Your task to perform on an android device: Play the last video I watched on Youtube Image 0: 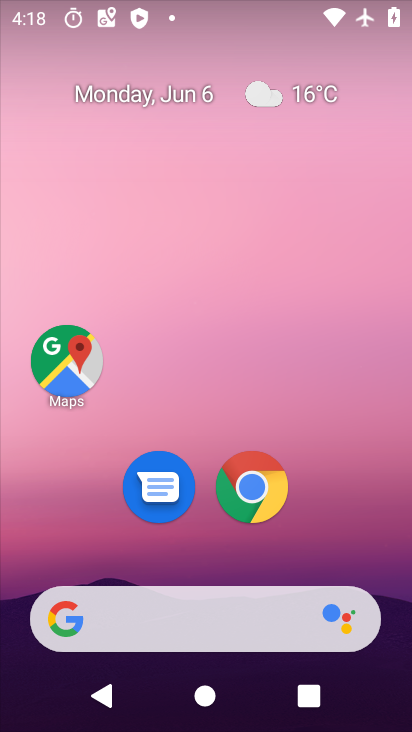
Step 0: drag from (316, 468) to (344, 121)
Your task to perform on an android device: Play the last video I watched on Youtube Image 1: 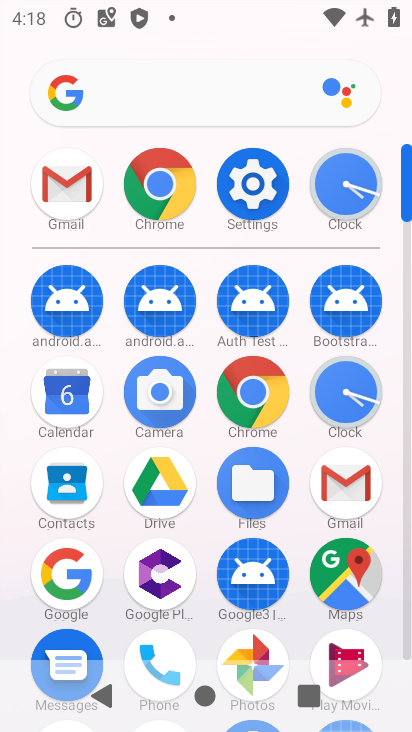
Step 1: drag from (294, 571) to (314, 155)
Your task to perform on an android device: Play the last video I watched on Youtube Image 2: 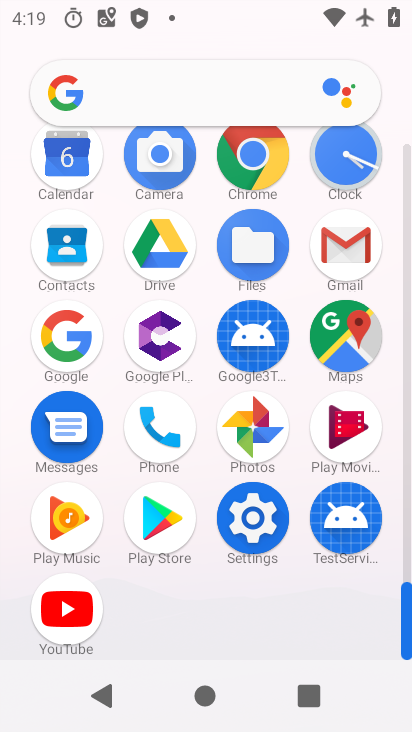
Step 2: click (58, 594)
Your task to perform on an android device: Play the last video I watched on Youtube Image 3: 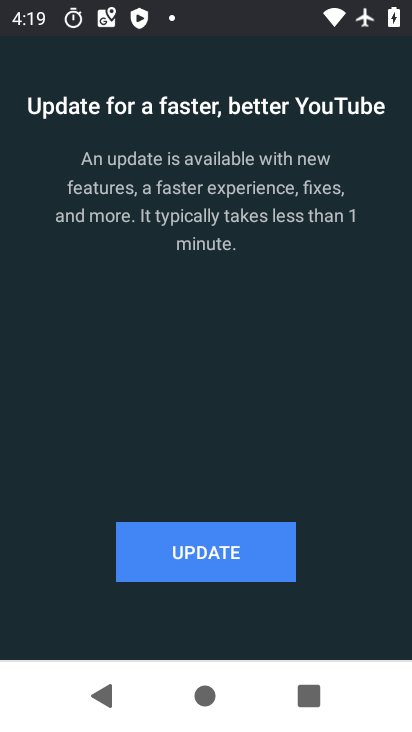
Step 3: click (140, 572)
Your task to perform on an android device: Play the last video I watched on Youtube Image 4: 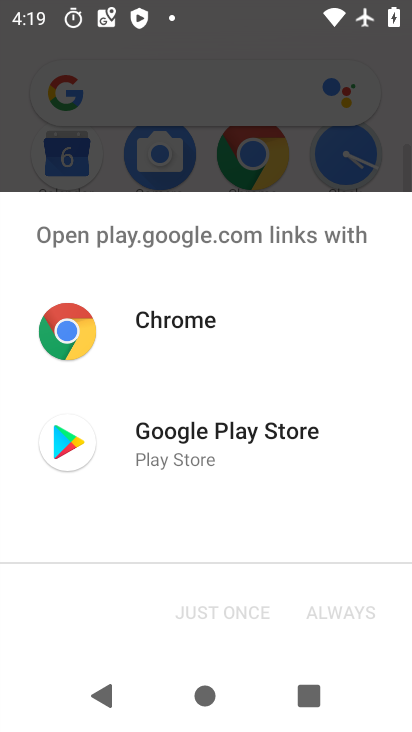
Step 4: click (155, 451)
Your task to perform on an android device: Play the last video I watched on Youtube Image 5: 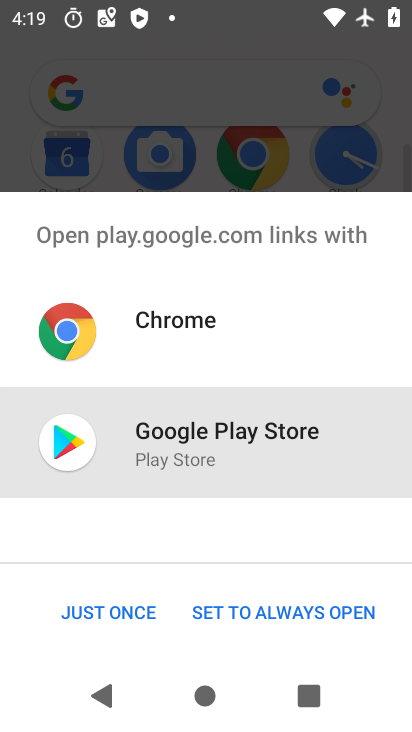
Step 5: click (72, 636)
Your task to perform on an android device: Play the last video I watched on Youtube Image 6: 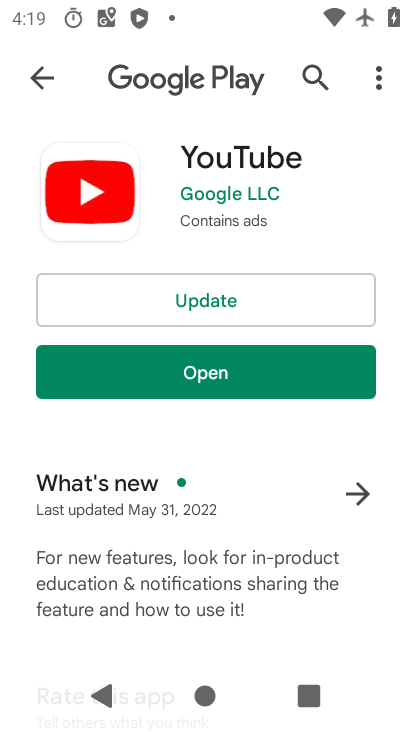
Step 6: click (230, 291)
Your task to perform on an android device: Play the last video I watched on Youtube Image 7: 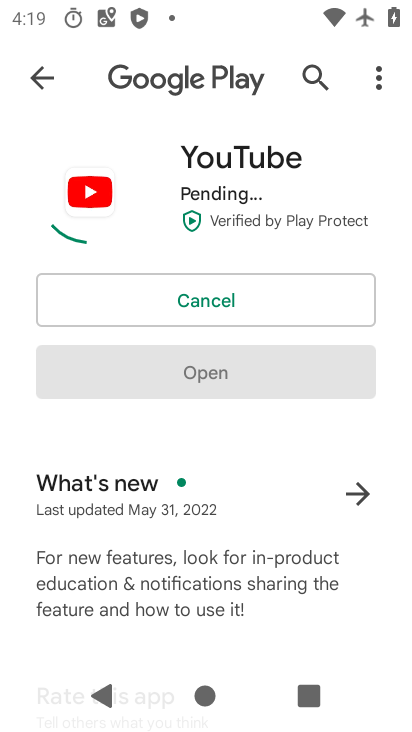
Step 7: press enter
Your task to perform on an android device: Play the last video I watched on Youtube Image 8: 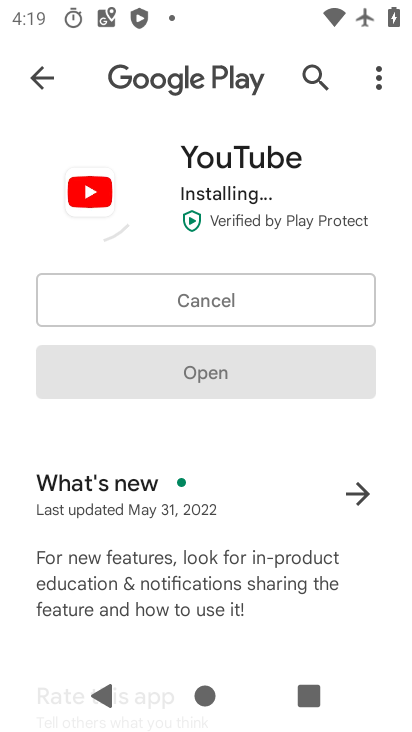
Step 8: press home button
Your task to perform on an android device: Play the last video I watched on Youtube Image 9: 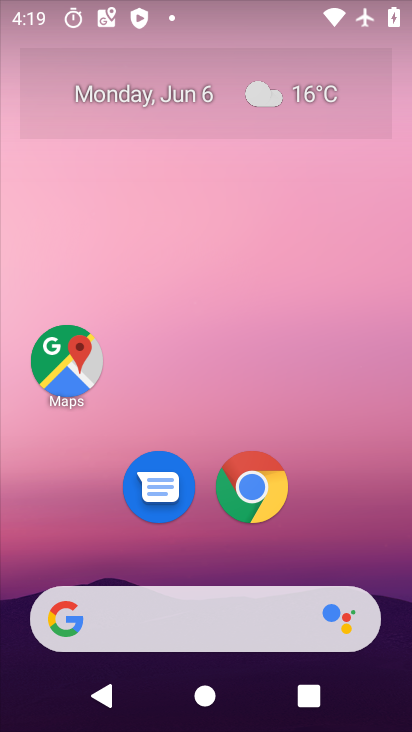
Step 9: drag from (323, 529) to (356, 73)
Your task to perform on an android device: Play the last video I watched on Youtube Image 10: 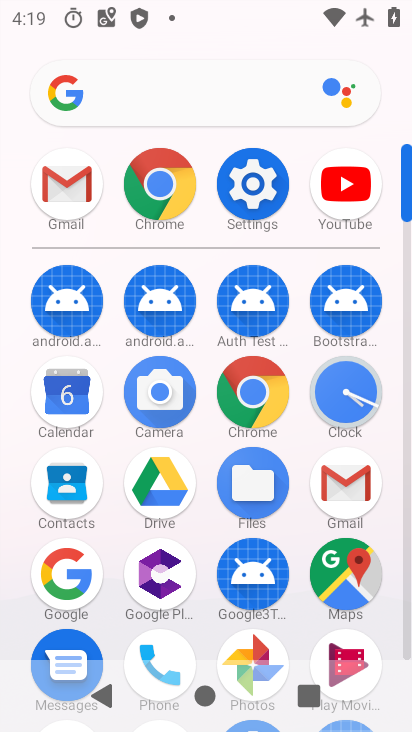
Step 10: click (353, 187)
Your task to perform on an android device: Play the last video I watched on Youtube Image 11: 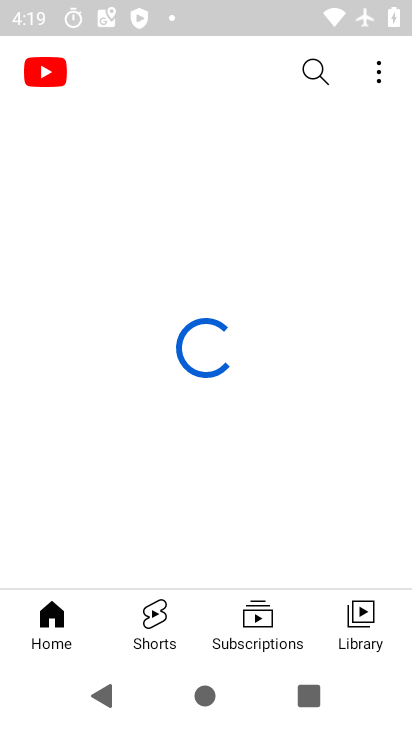
Step 11: click (364, 628)
Your task to perform on an android device: Play the last video I watched on Youtube Image 12: 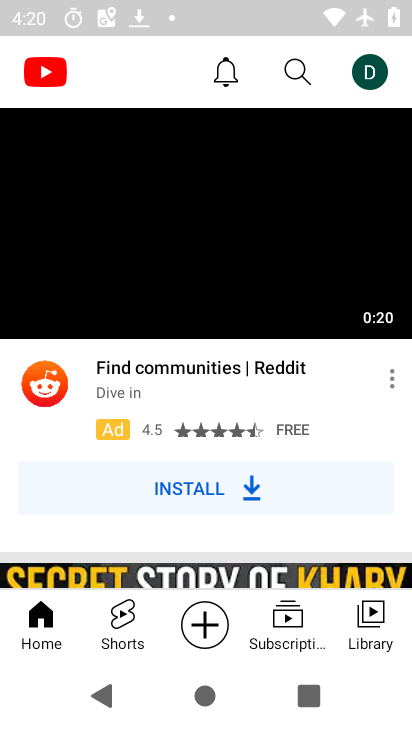
Step 12: click (357, 611)
Your task to perform on an android device: Play the last video I watched on Youtube Image 13: 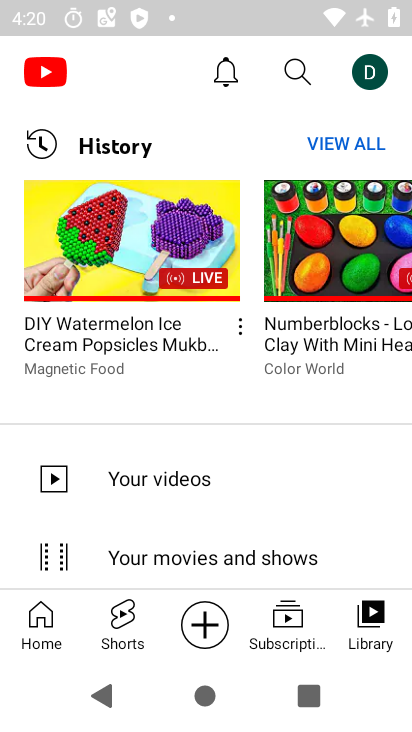
Step 13: click (144, 226)
Your task to perform on an android device: Play the last video I watched on Youtube Image 14: 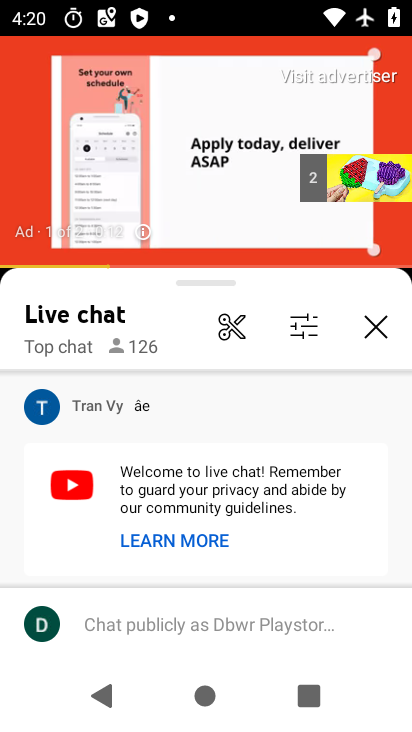
Step 14: click (378, 317)
Your task to perform on an android device: Play the last video I watched on Youtube Image 15: 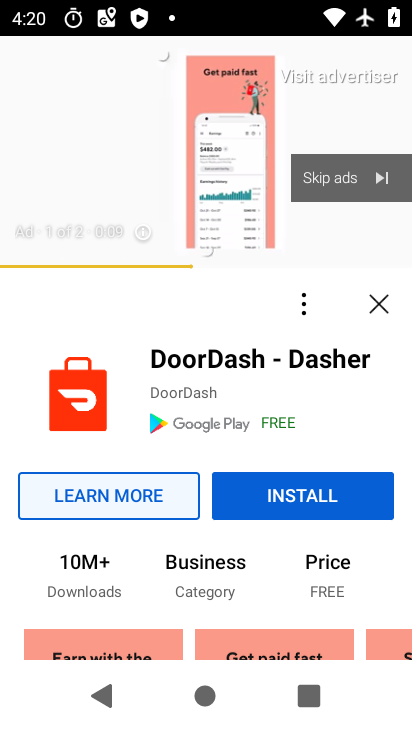
Step 15: click (378, 310)
Your task to perform on an android device: Play the last video I watched on Youtube Image 16: 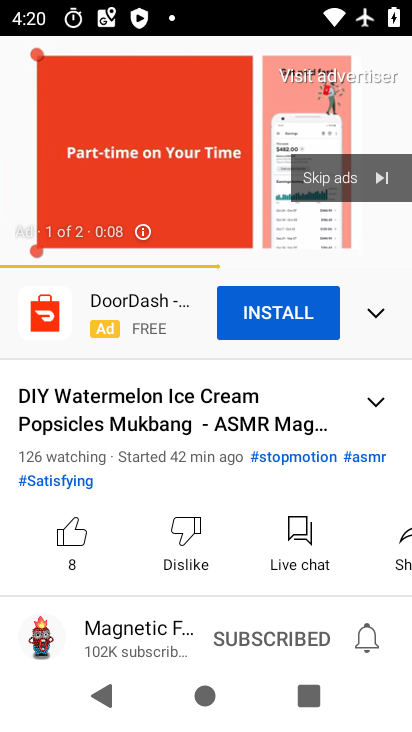
Step 16: click (364, 192)
Your task to perform on an android device: Play the last video I watched on Youtube Image 17: 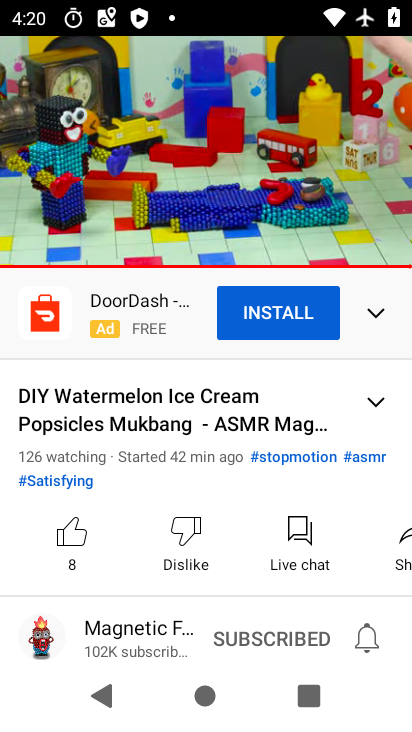
Step 17: task complete